Your task to perform on an android device: Do I have any events this weekend? Image 0: 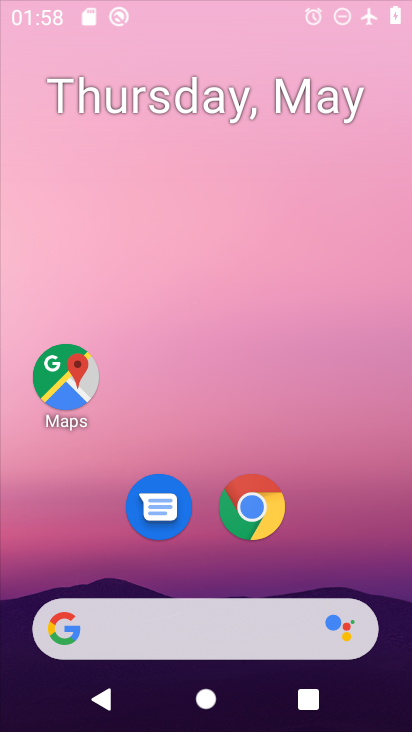
Step 0: drag from (352, 569) to (339, 215)
Your task to perform on an android device: Do I have any events this weekend? Image 1: 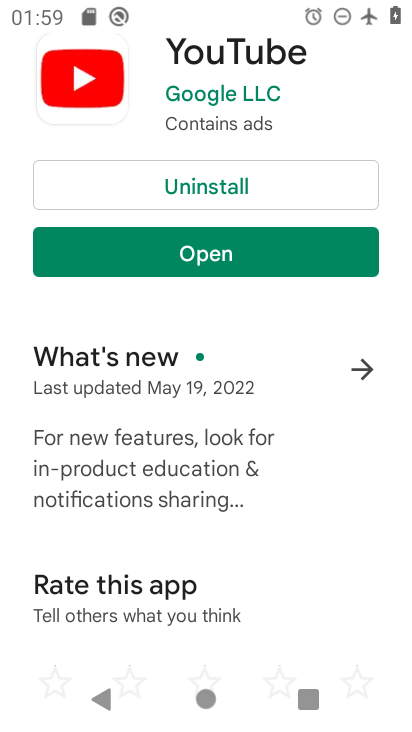
Step 1: press home button
Your task to perform on an android device: Do I have any events this weekend? Image 2: 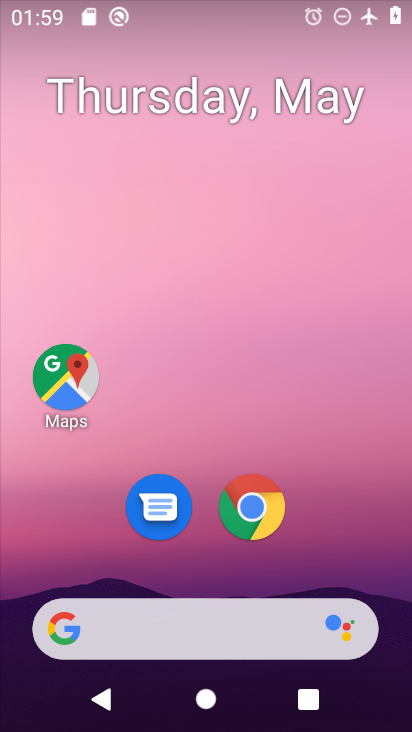
Step 2: drag from (341, 527) to (347, 155)
Your task to perform on an android device: Do I have any events this weekend? Image 3: 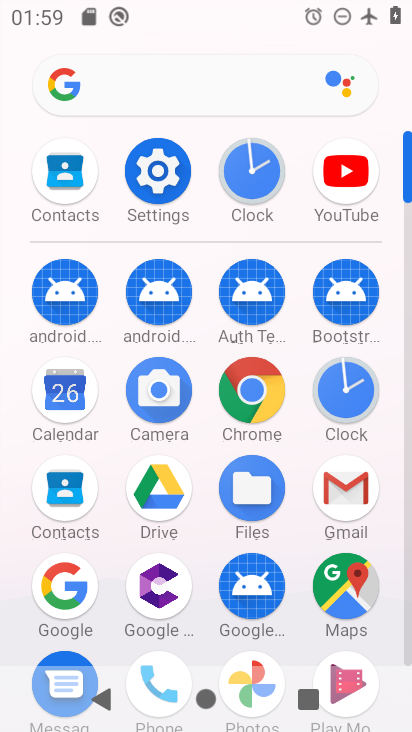
Step 3: click (70, 409)
Your task to perform on an android device: Do I have any events this weekend? Image 4: 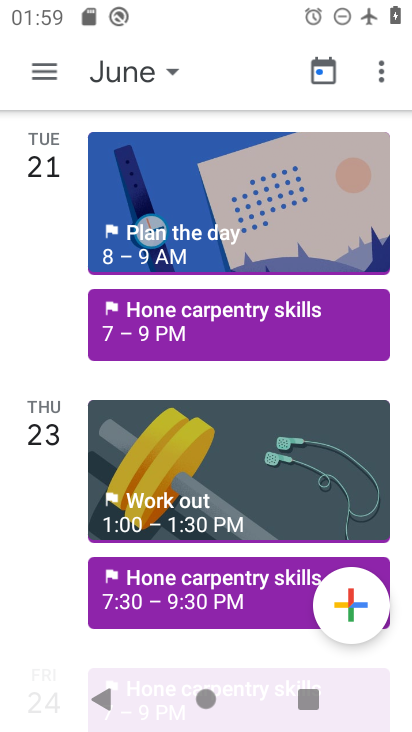
Step 4: task complete